Your task to perform on an android device: Empty the shopping cart on target.com. Add razer huntsman to the cart on target.com Image 0: 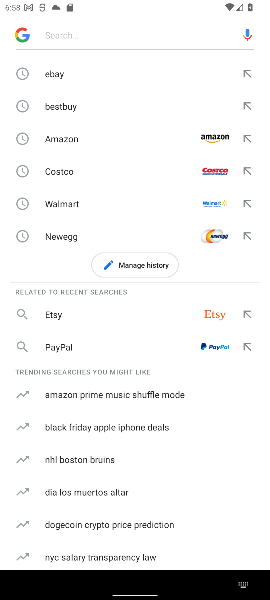
Step 0: press home button
Your task to perform on an android device: Empty the shopping cart on target.com. Add razer huntsman to the cart on target.com Image 1: 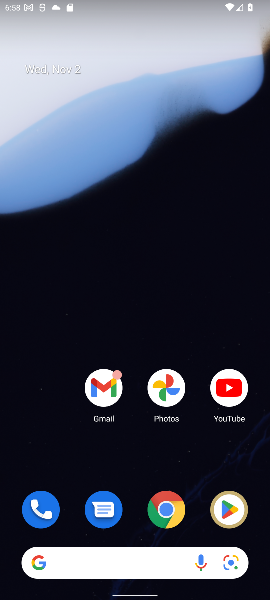
Step 1: click (97, 565)
Your task to perform on an android device: Empty the shopping cart on target.com. Add razer huntsman to the cart on target.com Image 2: 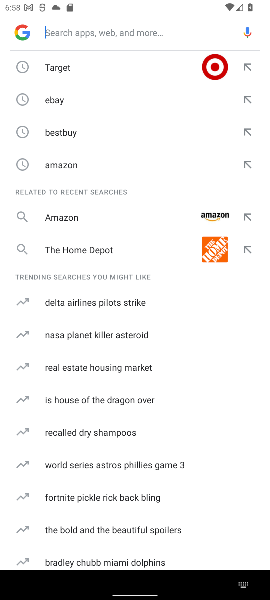
Step 2: click (54, 69)
Your task to perform on an android device: Empty the shopping cart on target.com. Add razer huntsman to the cart on target.com Image 3: 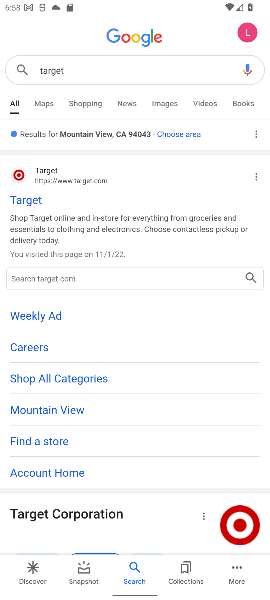
Step 3: click (22, 199)
Your task to perform on an android device: Empty the shopping cart on target.com. Add razer huntsman to the cart on target.com Image 4: 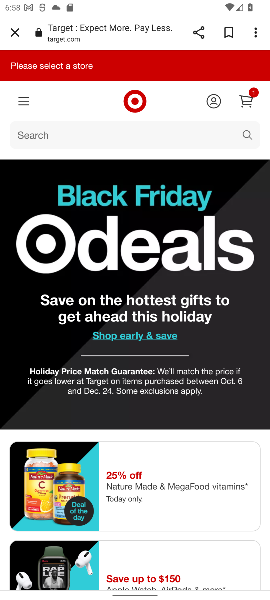
Step 4: click (246, 94)
Your task to perform on an android device: Empty the shopping cart on target.com. Add razer huntsman to the cart on target.com Image 5: 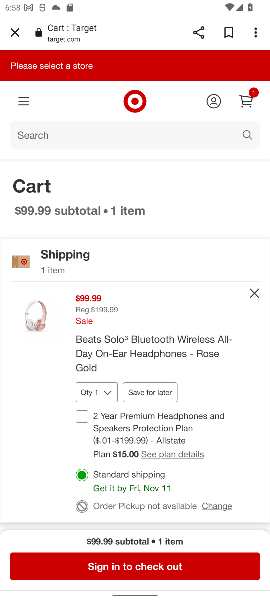
Step 5: click (257, 293)
Your task to perform on an android device: Empty the shopping cart on target.com. Add razer huntsman to the cart on target.com Image 6: 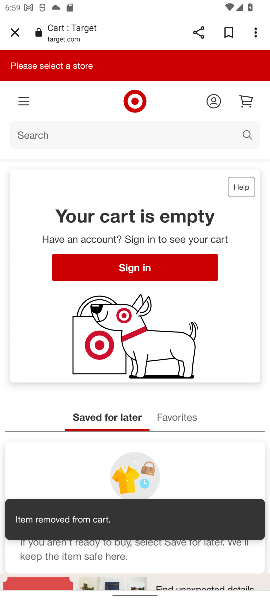
Step 6: click (79, 139)
Your task to perform on an android device: Empty the shopping cart on target.com. Add razer huntsman to the cart on target.com Image 7: 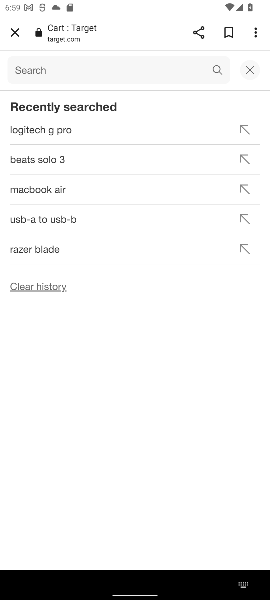
Step 7: type "razer "
Your task to perform on an android device: Empty the shopping cart on target.com. Add razer huntsman to the cart on target.com Image 8: 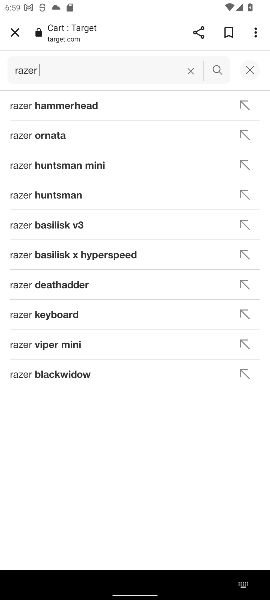
Step 8: type "huntsman"
Your task to perform on an android device: Empty the shopping cart on target.com. Add razer huntsman to the cart on target.com Image 9: 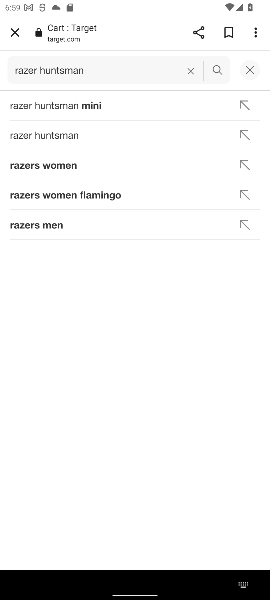
Step 9: click (26, 133)
Your task to perform on an android device: Empty the shopping cart on target.com. Add razer huntsman to the cart on target.com Image 10: 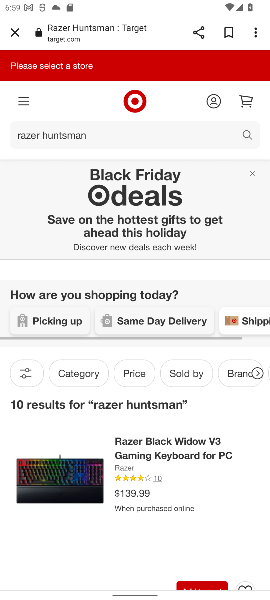
Step 10: click (250, 172)
Your task to perform on an android device: Empty the shopping cart on target.com. Add razer huntsman to the cart on target.com Image 11: 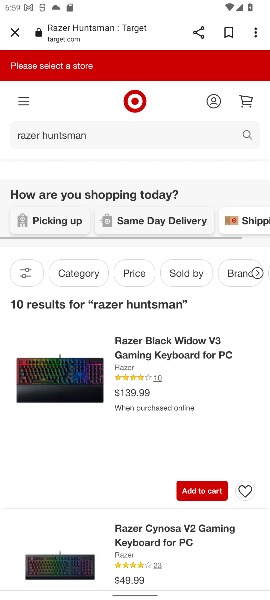
Step 11: click (196, 493)
Your task to perform on an android device: Empty the shopping cart on target.com. Add razer huntsman to the cart on target.com Image 12: 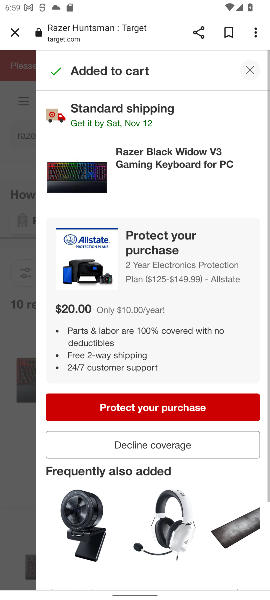
Step 12: task complete